Your task to perform on an android device: Open Google Chrome and click the shortcut for Amazon.com Image 0: 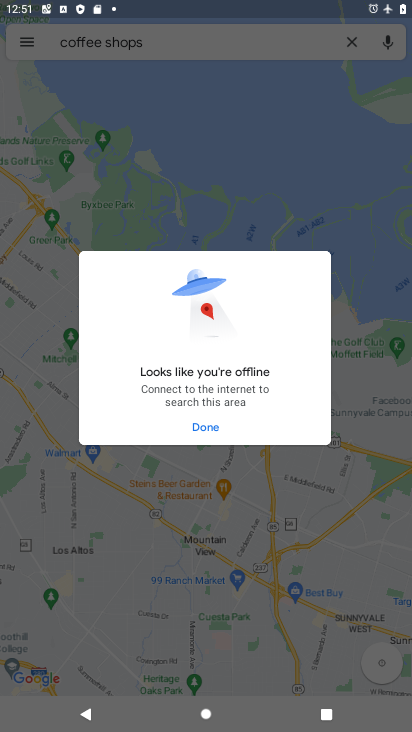
Step 0: press home button
Your task to perform on an android device: Open Google Chrome and click the shortcut for Amazon.com Image 1: 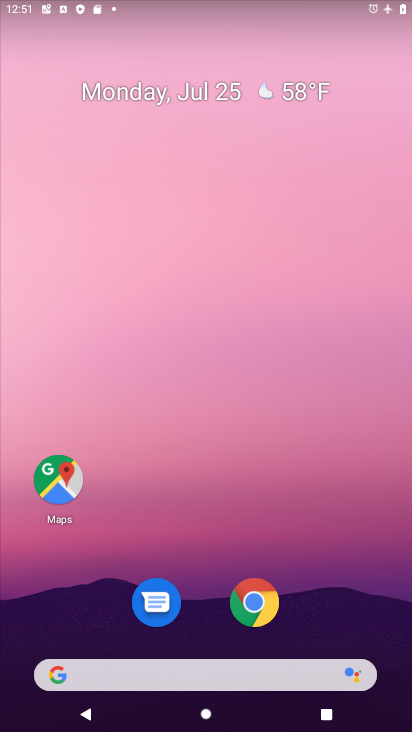
Step 1: click (248, 587)
Your task to perform on an android device: Open Google Chrome and click the shortcut for Amazon.com Image 2: 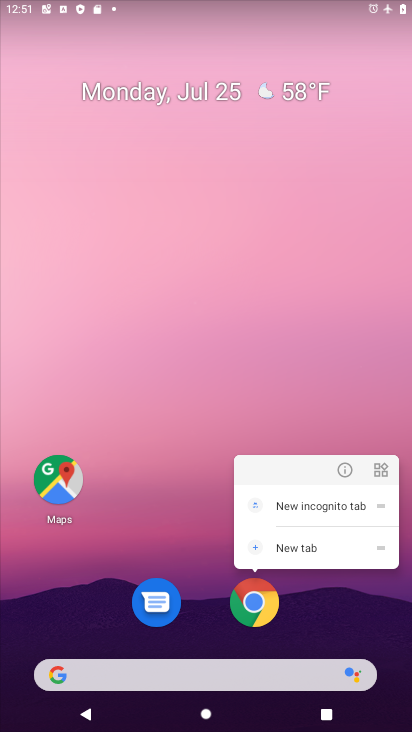
Step 2: click (246, 634)
Your task to perform on an android device: Open Google Chrome and click the shortcut for Amazon.com Image 3: 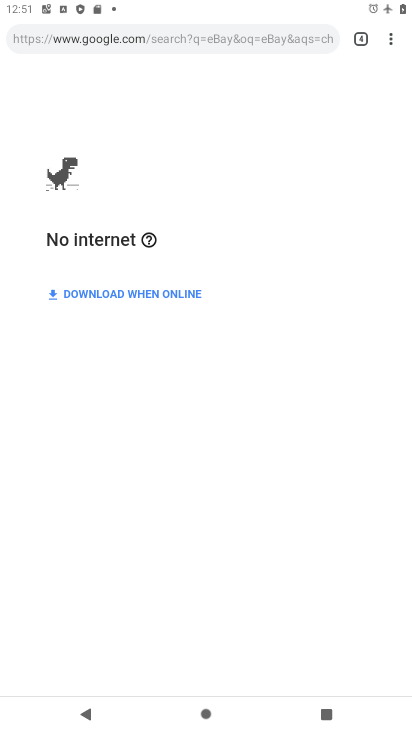
Step 3: click (360, 42)
Your task to perform on an android device: Open Google Chrome and click the shortcut for Amazon.com Image 4: 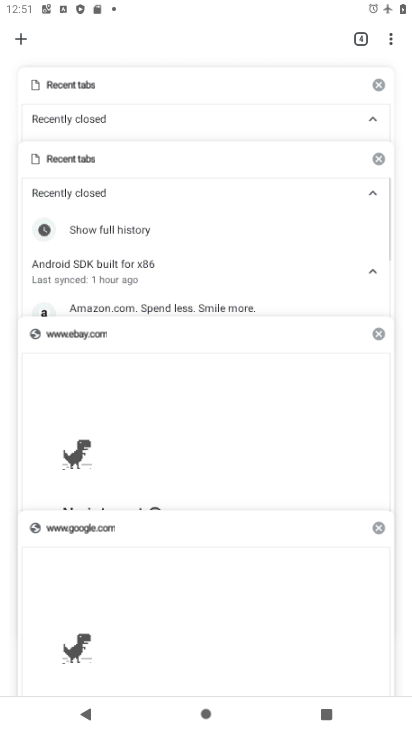
Step 4: click (21, 35)
Your task to perform on an android device: Open Google Chrome and click the shortcut for Amazon.com Image 5: 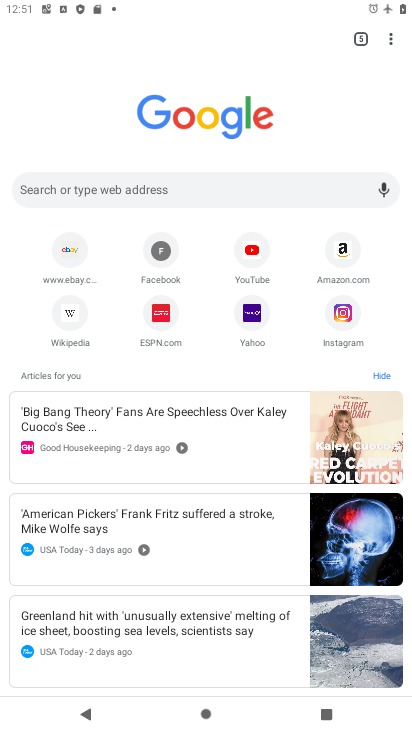
Step 5: click (323, 257)
Your task to perform on an android device: Open Google Chrome and click the shortcut for Amazon.com Image 6: 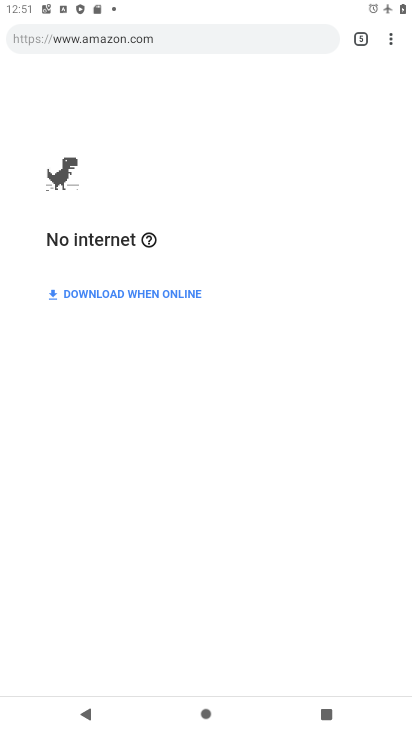
Step 6: task complete